Your task to perform on an android device: Is it going to rain today? Image 0: 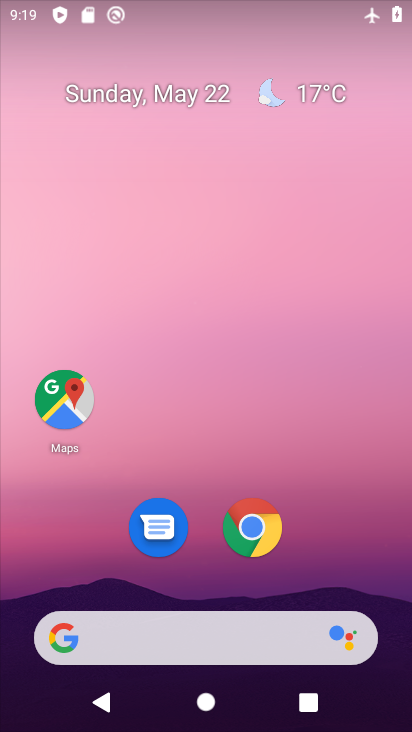
Step 0: click (188, 632)
Your task to perform on an android device: Is it going to rain today? Image 1: 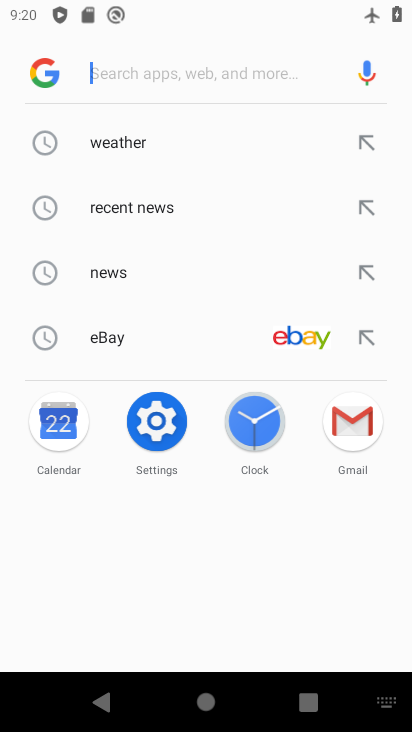
Step 1: click (130, 130)
Your task to perform on an android device: Is it going to rain today? Image 2: 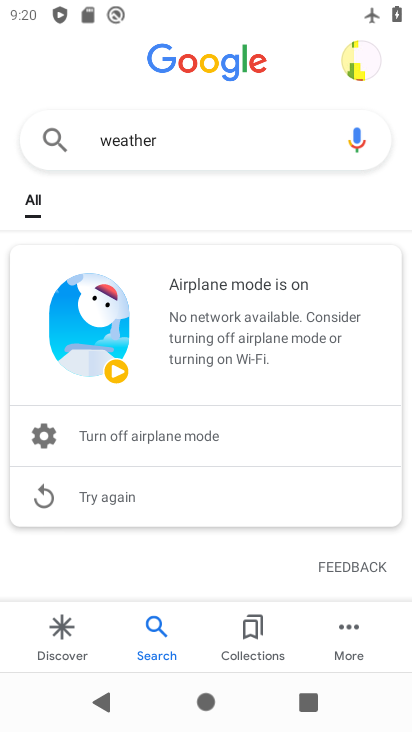
Step 2: task complete